Your task to perform on an android device: check storage Image 0: 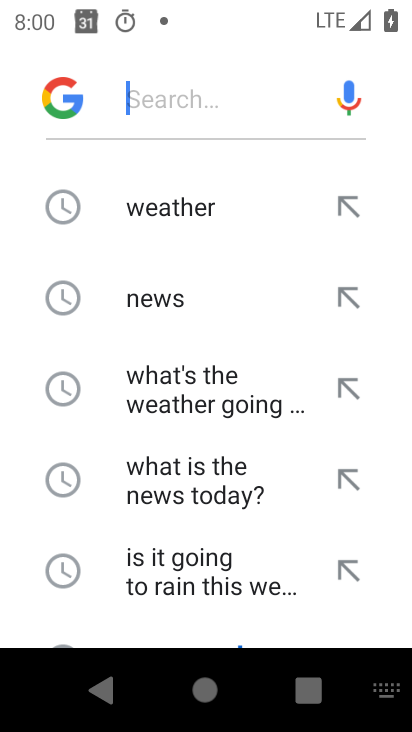
Step 0: press home button
Your task to perform on an android device: check storage Image 1: 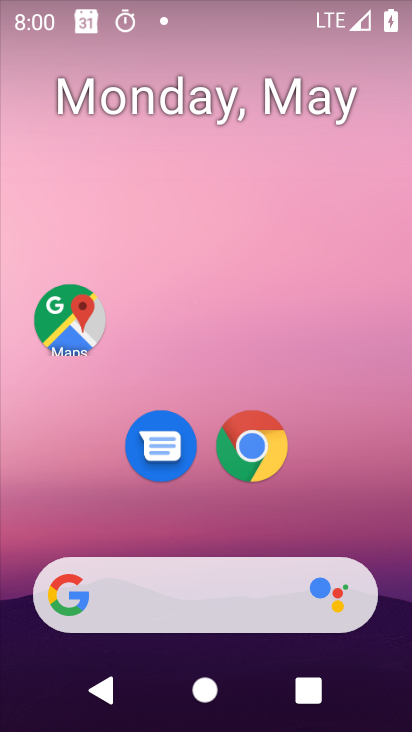
Step 1: drag from (336, 489) to (266, 15)
Your task to perform on an android device: check storage Image 2: 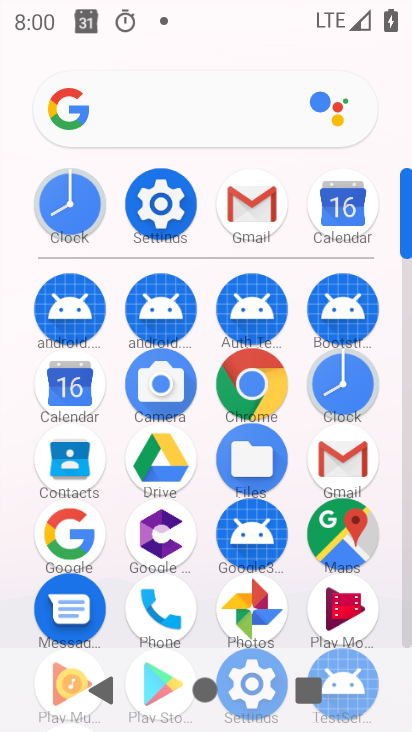
Step 2: click (165, 218)
Your task to perform on an android device: check storage Image 3: 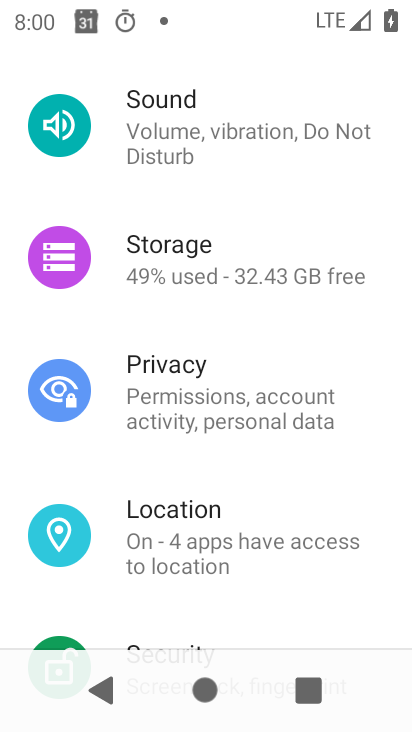
Step 3: click (165, 266)
Your task to perform on an android device: check storage Image 4: 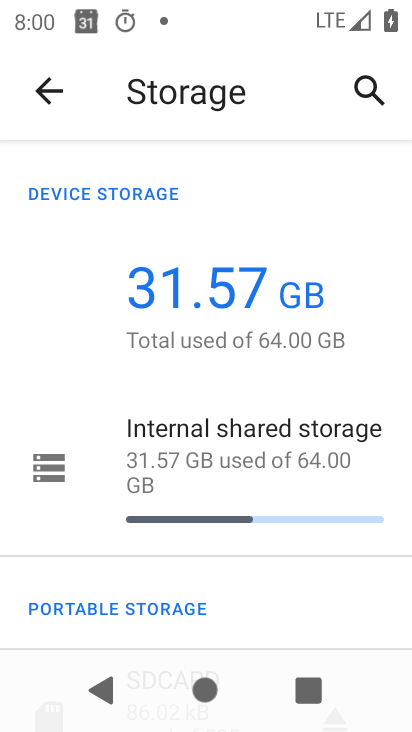
Step 4: click (194, 452)
Your task to perform on an android device: check storage Image 5: 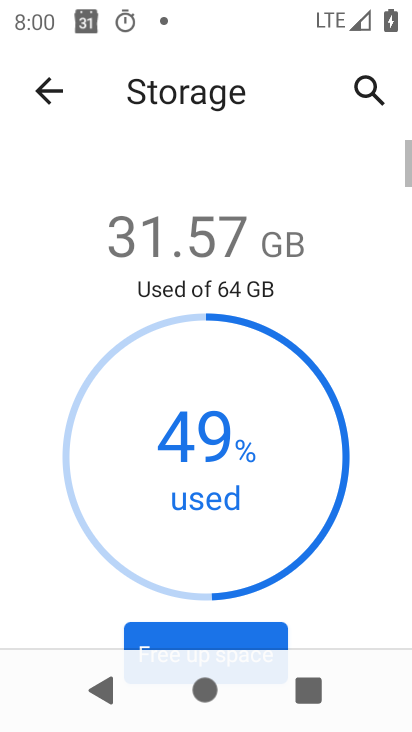
Step 5: task complete